Your task to perform on an android device: Search for pizza restaurants on Maps Image 0: 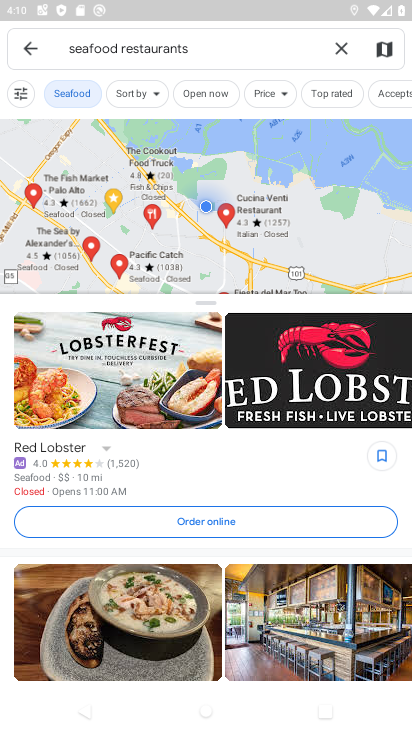
Step 0: click (344, 51)
Your task to perform on an android device: Search for pizza restaurants on Maps Image 1: 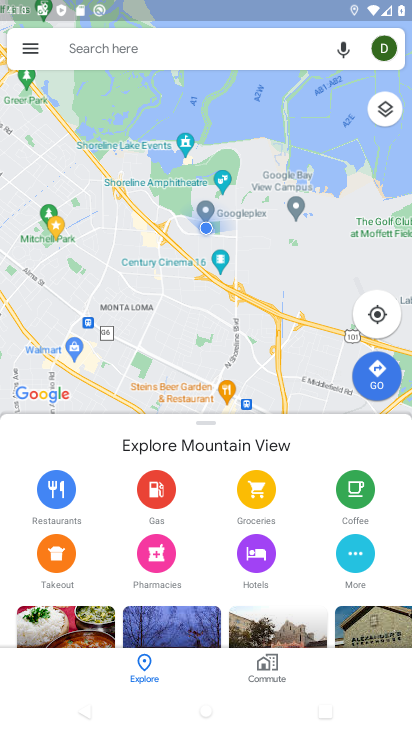
Step 1: click (210, 40)
Your task to perform on an android device: Search for pizza restaurants on Maps Image 2: 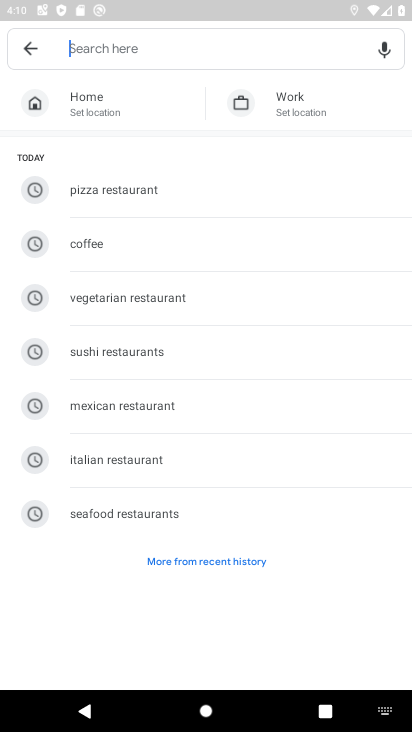
Step 2: click (129, 202)
Your task to perform on an android device: Search for pizza restaurants on Maps Image 3: 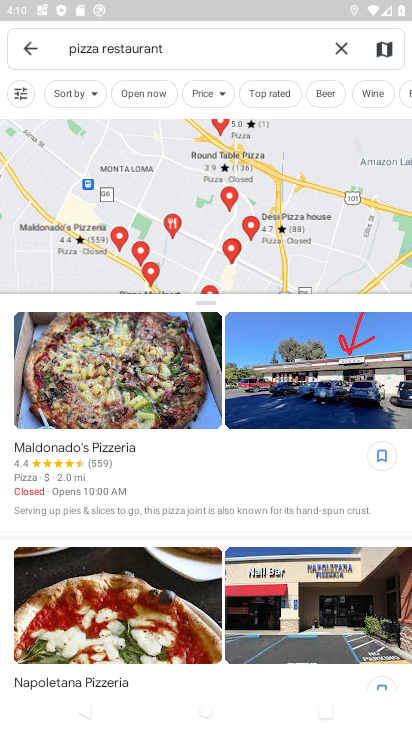
Step 3: task complete